Your task to perform on an android device: see creations saved in the google photos Image 0: 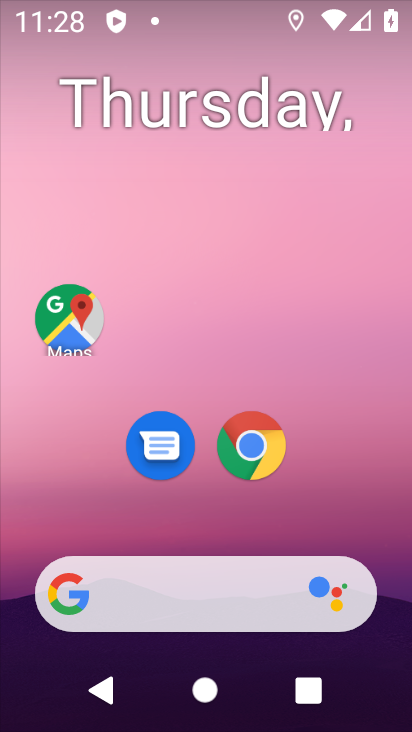
Step 0: drag from (388, 499) to (245, 63)
Your task to perform on an android device: see creations saved in the google photos Image 1: 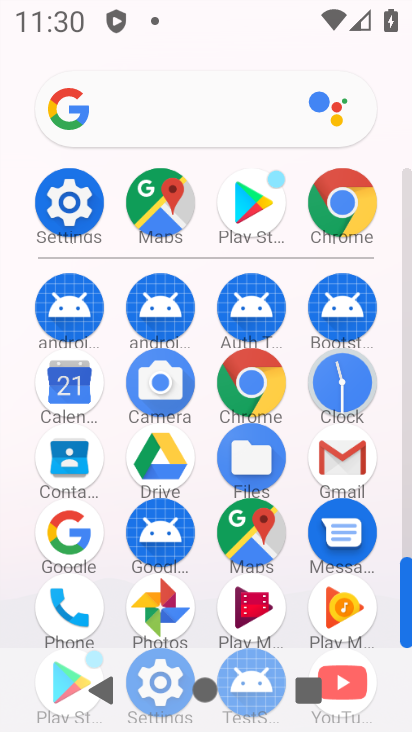
Step 1: click (175, 608)
Your task to perform on an android device: see creations saved in the google photos Image 2: 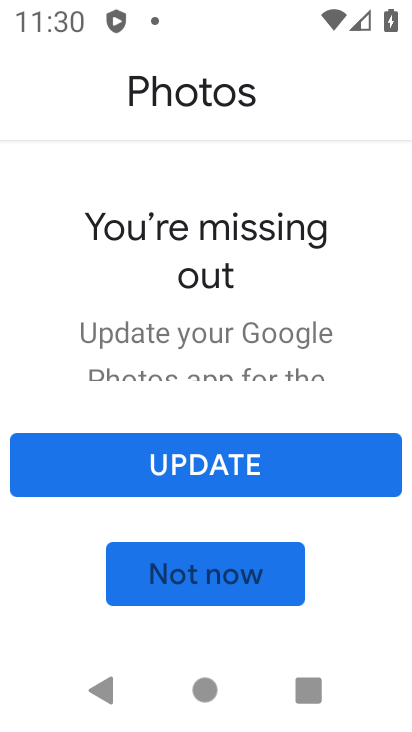
Step 2: click (213, 475)
Your task to perform on an android device: see creations saved in the google photos Image 3: 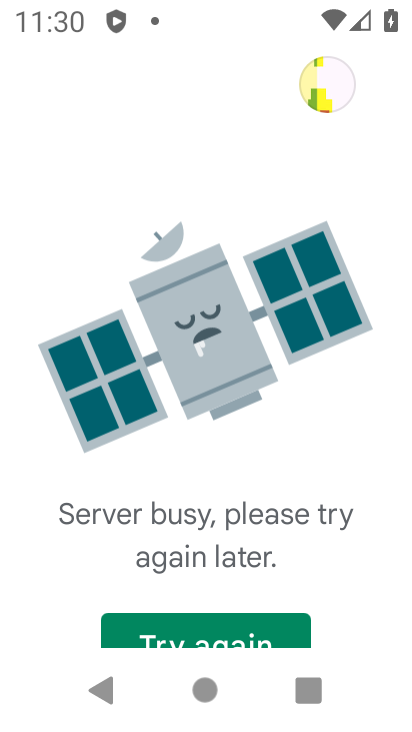
Step 3: click (220, 617)
Your task to perform on an android device: see creations saved in the google photos Image 4: 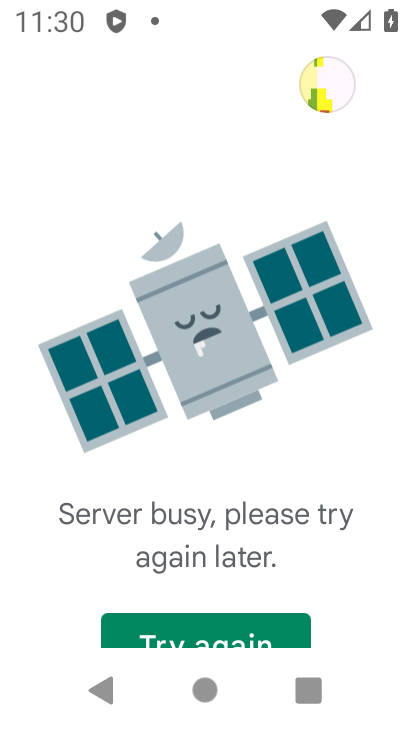
Step 4: task complete